Your task to perform on an android device: What's the weather going to be this weekend? Image 0: 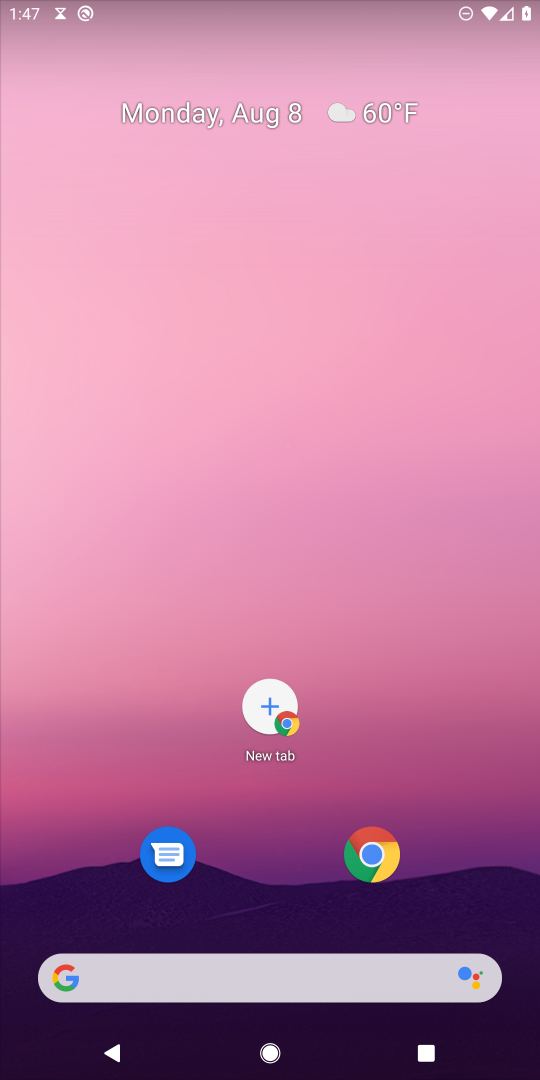
Step 0: press home button
Your task to perform on an android device: What's the weather going to be this weekend? Image 1: 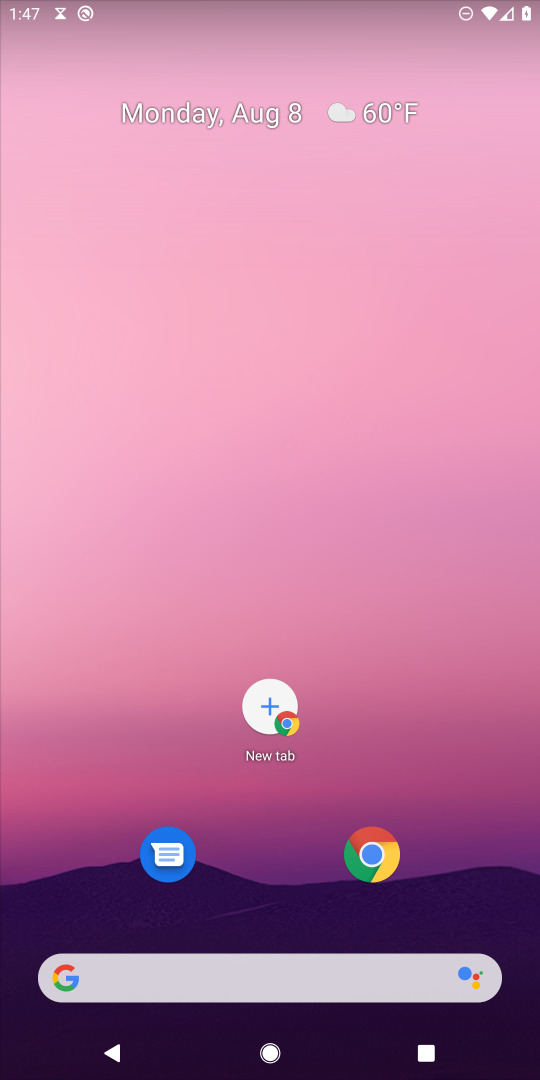
Step 1: click (69, 978)
Your task to perform on an android device: What's the weather going to be this weekend? Image 2: 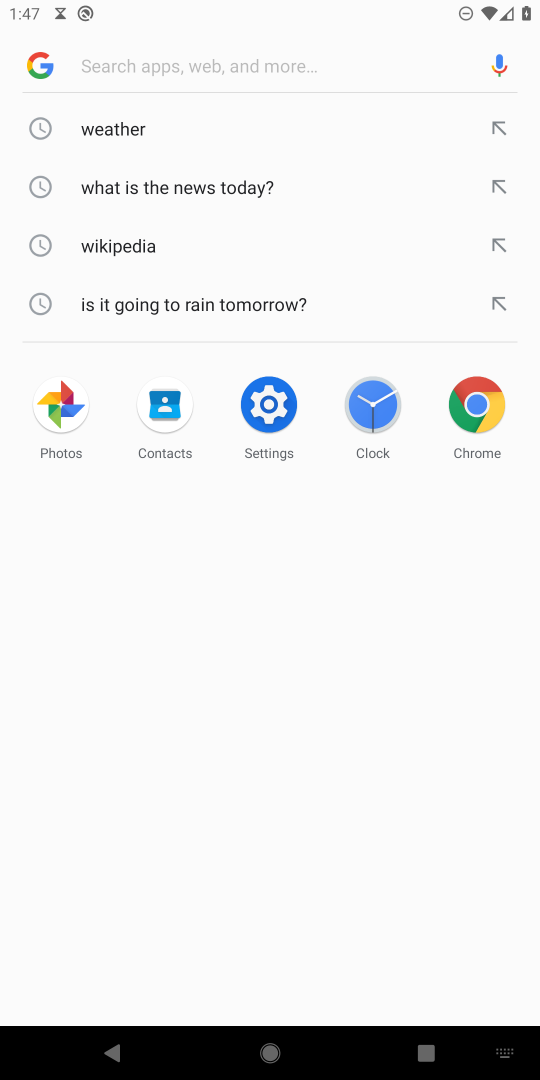
Step 2: type "What's the weather going to be this weekend?"
Your task to perform on an android device: What's the weather going to be this weekend? Image 3: 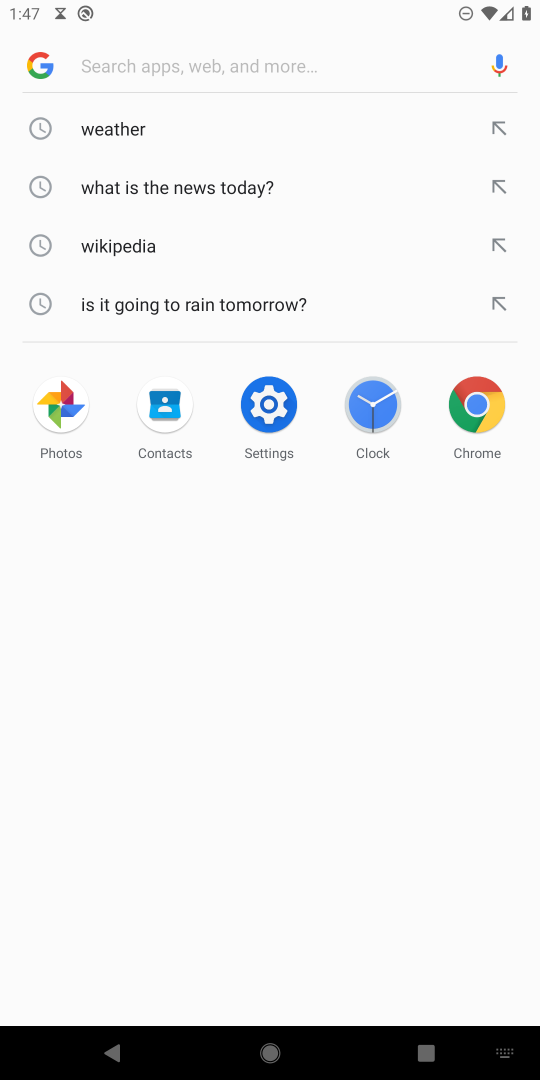
Step 3: click (166, 72)
Your task to perform on an android device: What's the weather going to be this weekend? Image 4: 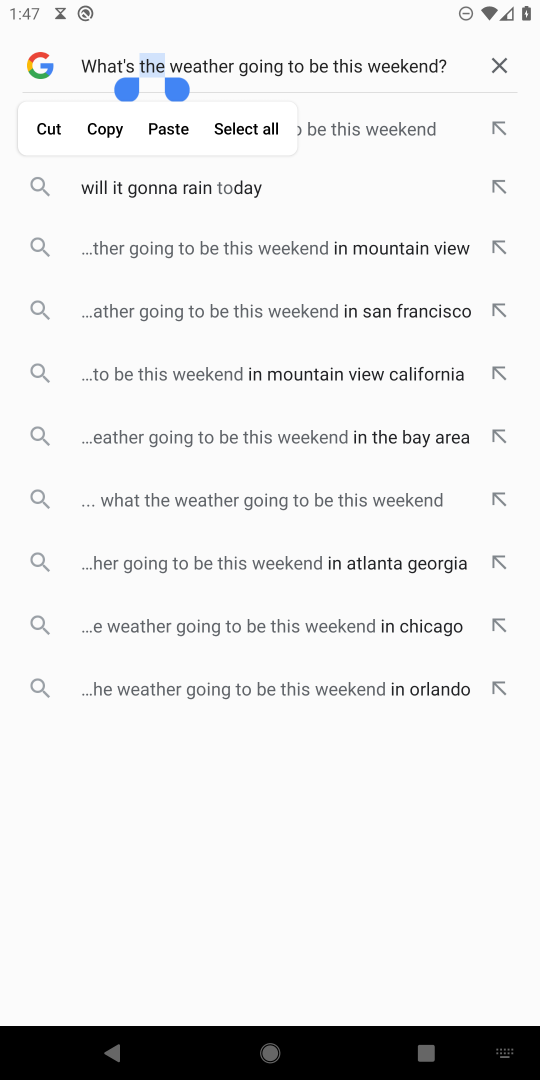
Step 4: press enter
Your task to perform on an android device: What's the weather going to be this weekend? Image 5: 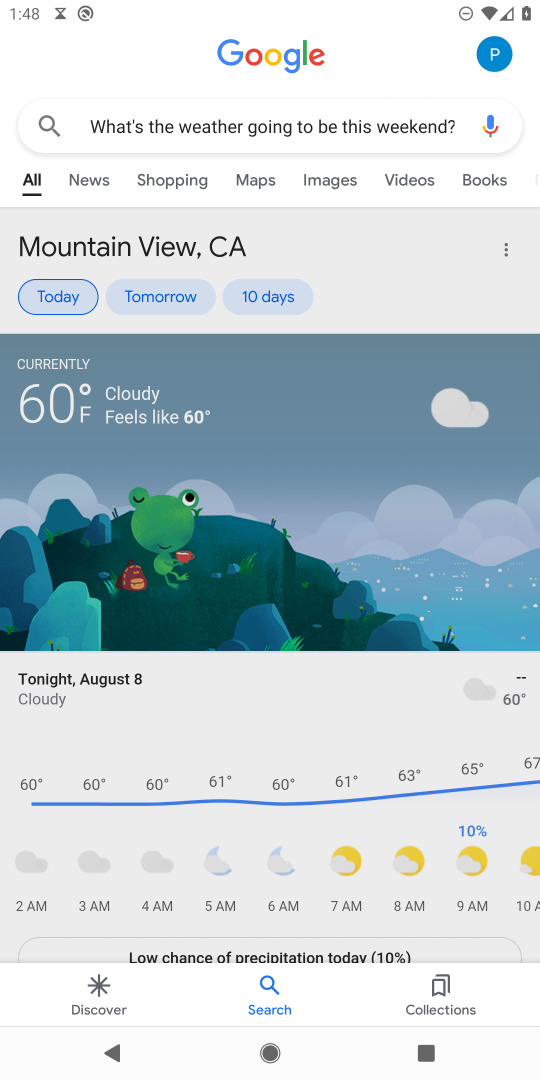
Step 5: task complete